Your task to perform on an android device: change your default location settings in chrome Image 0: 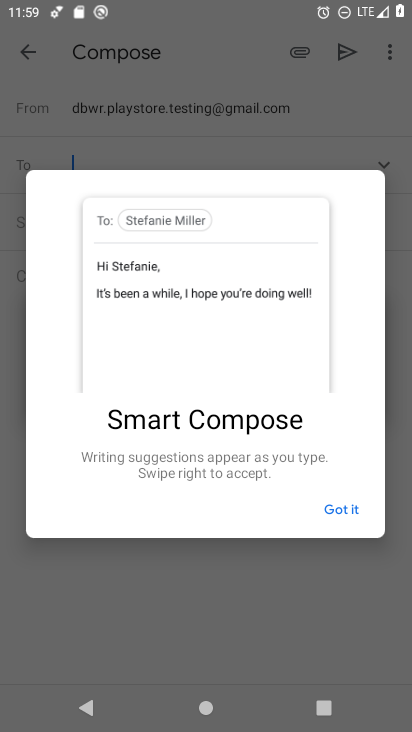
Step 0: press home button
Your task to perform on an android device: change your default location settings in chrome Image 1: 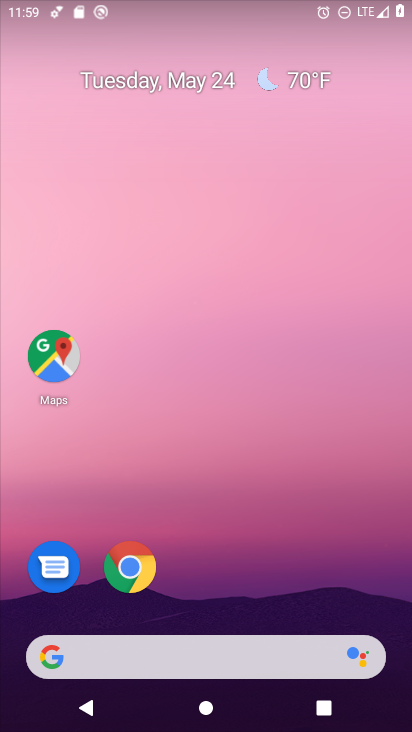
Step 1: click (113, 561)
Your task to perform on an android device: change your default location settings in chrome Image 2: 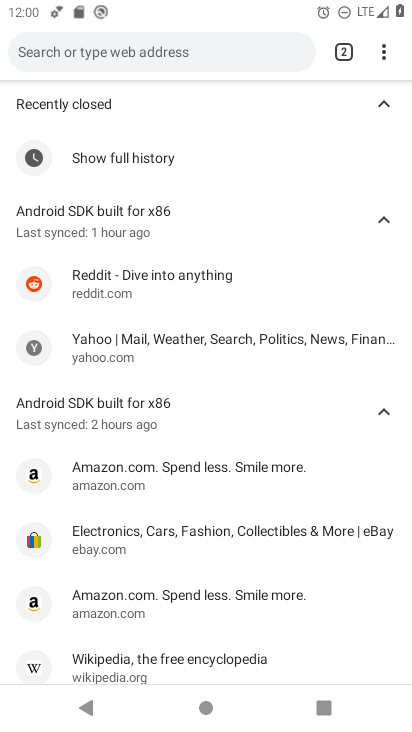
Step 2: drag from (305, 641) to (275, 298)
Your task to perform on an android device: change your default location settings in chrome Image 3: 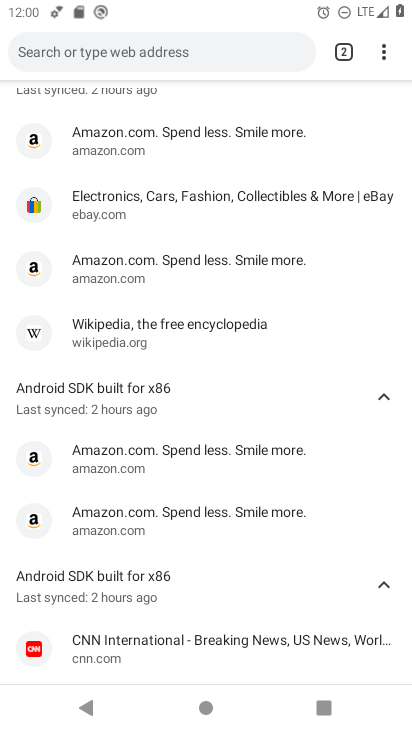
Step 3: press back button
Your task to perform on an android device: change your default location settings in chrome Image 4: 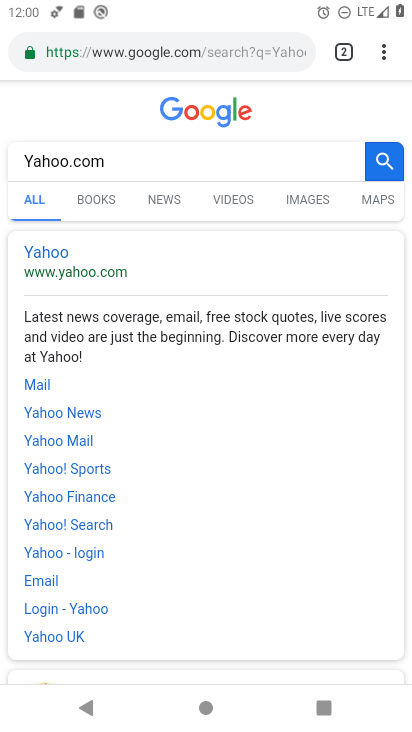
Step 4: press back button
Your task to perform on an android device: change your default location settings in chrome Image 5: 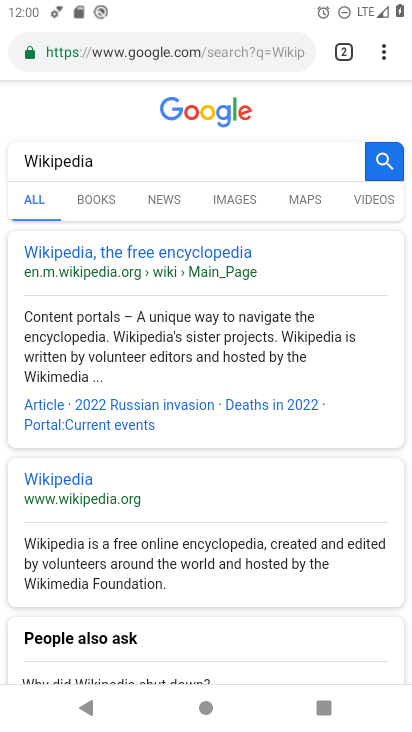
Step 5: click (383, 58)
Your task to perform on an android device: change your default location settings in chrome Image 6: 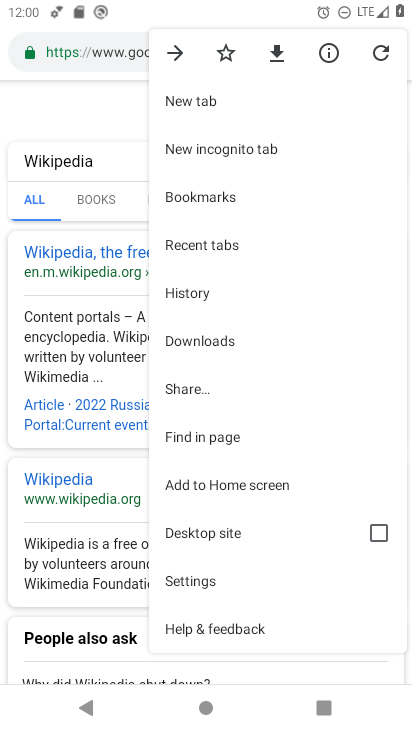
Step 6: click (195, 582)
Your task to perform on an android device: change your default location settings in chrome Image 7: 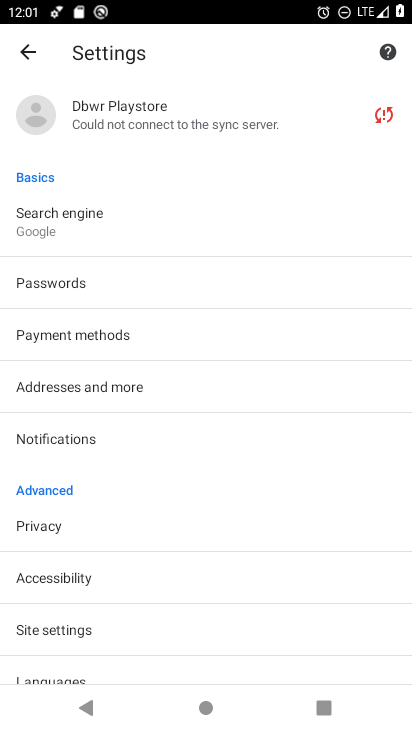
Step 7: click (47, 632)
Your task to perform on an android device: change your default location settings in chrome Image 8: 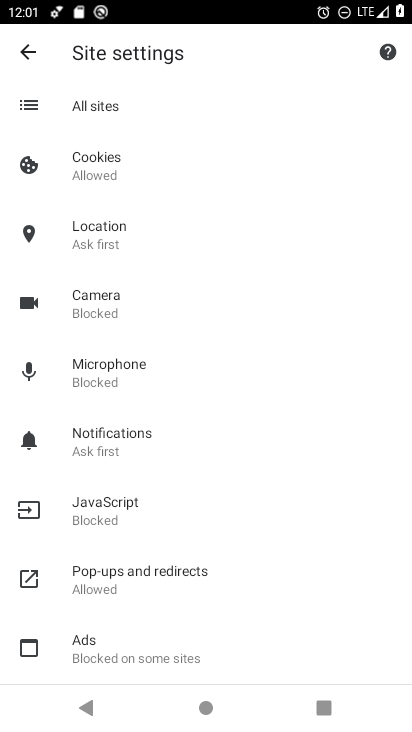
Step 8: click (91, 221)
Your task to perform on an android device: change your default location settings in chrome Image 9: 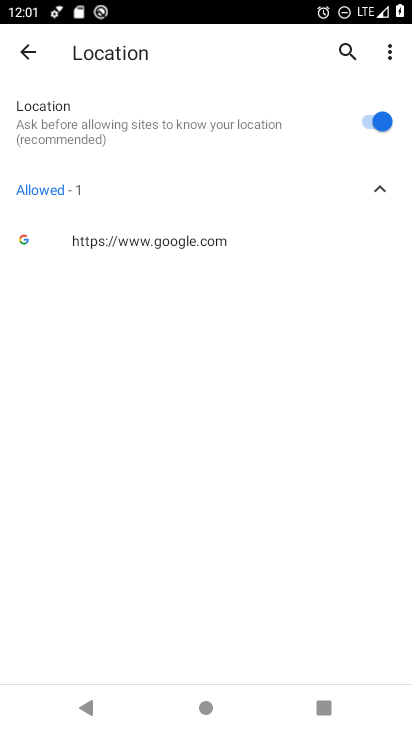
Step 9: task complete